Your task to perform on an android device: add a label to a message in the gmail app Image 0: 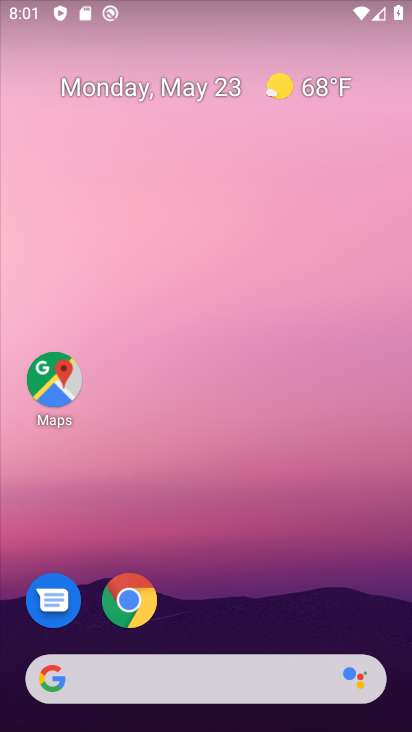
Step 0: drag from (6, 689) to (240, 187)
Your task to perform on an android device: add a label to a message in the gmail app Image 1: 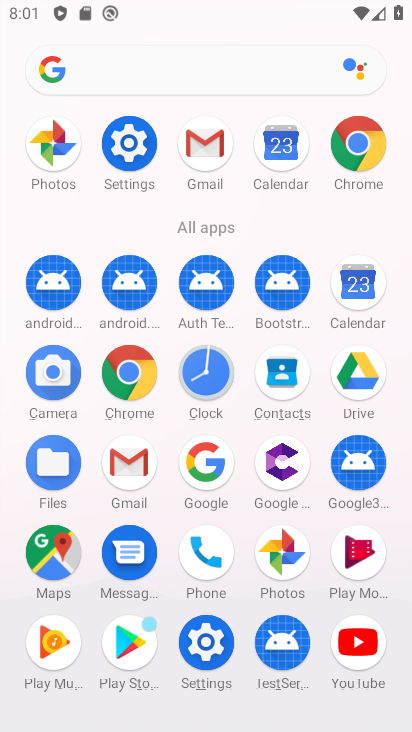
Step 1: click (198, 138)
Your task to perform on an android device: add a label to a message in the gmail app Image 2: 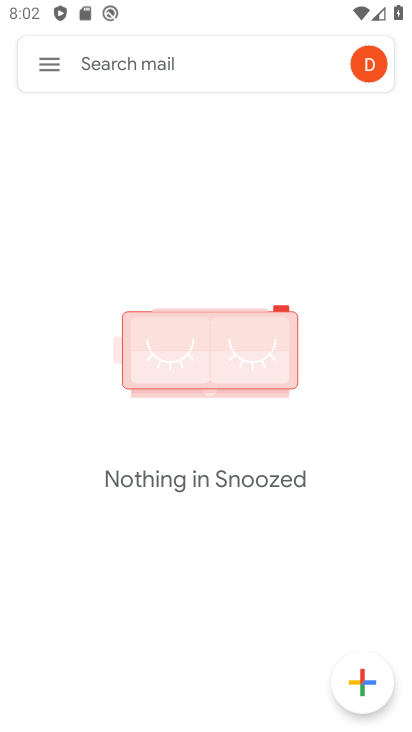
Step 2: click (52, 62)
Your task to perform on an android device: add a label to a message in the gmail app Image 3: 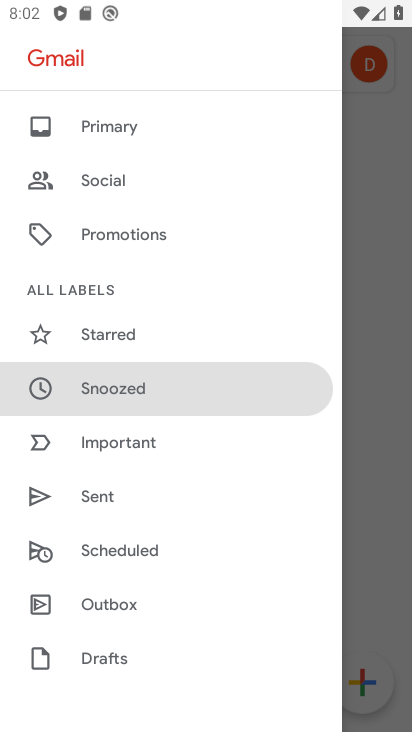
Step 3: click (143, 133)
Your task to perform on an android device: add a label to a message in the gmail app Image 4: 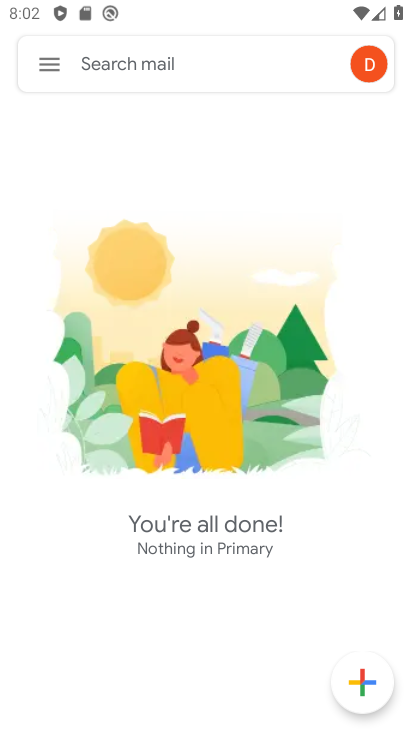
Step 4: task complete